Your task to perform on an android device: turn on location history Image 0: 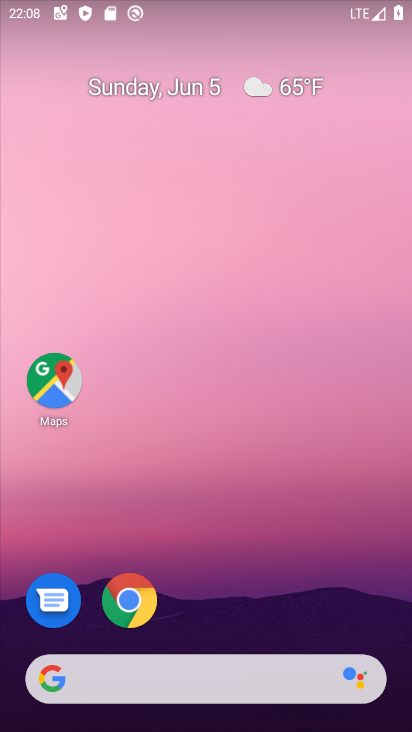
Step 0: drag from (348, 624) to (276, 186)
Your task to perform on an android device: turn on location history Image 1: 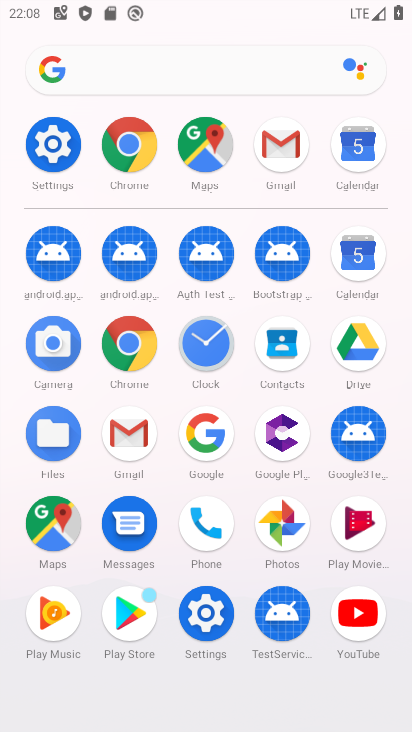
Step 1: click (54, 150)
Your task to perform on an android device: turn on location history Image 2: 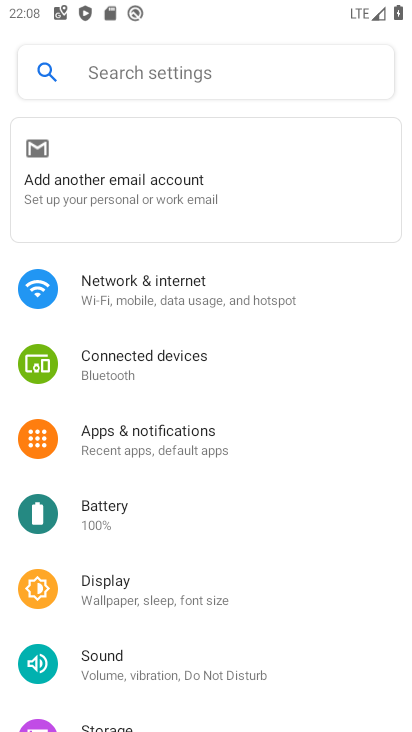
Step 2: drag from (278, 641) to (306, 277)
Your task to perform on an android device: turn on location history Image 3: 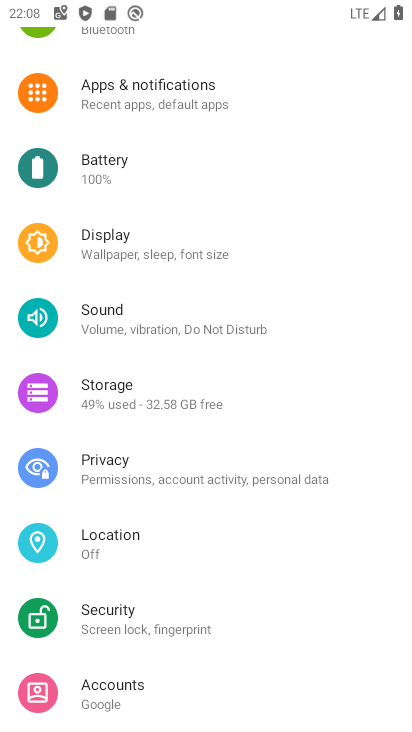
Step 3: click (144, 539)
Your task to perform on an android device: turn on location history Image 4: 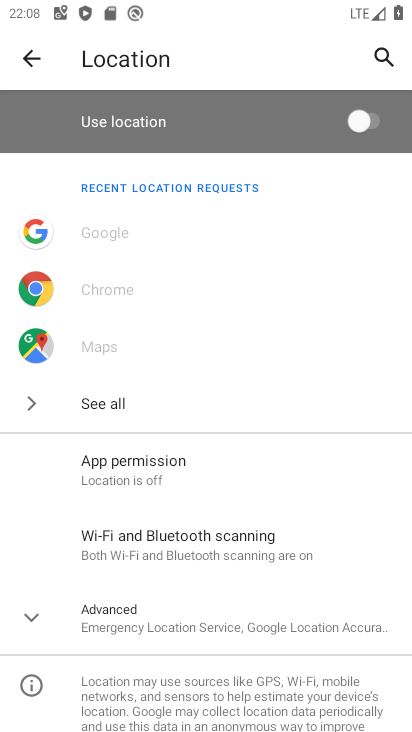
Step 4: click (139, 633)
Your task to perform on an android device: turn on location history Image 5: 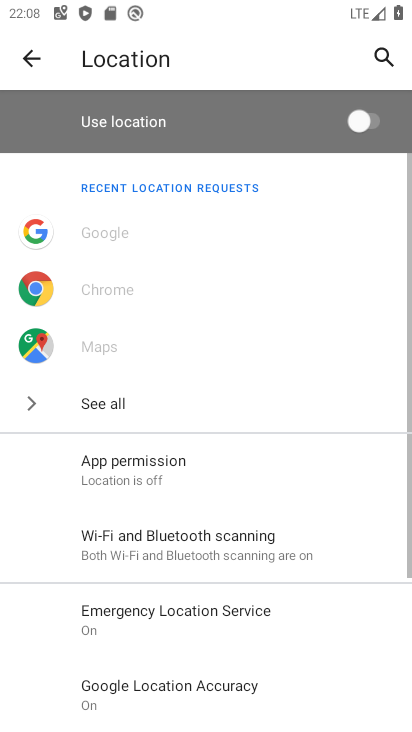
Step 5: drag from (149, 626) to (248, 249)
Your task to perform on an android device: turn on location history Image 6: 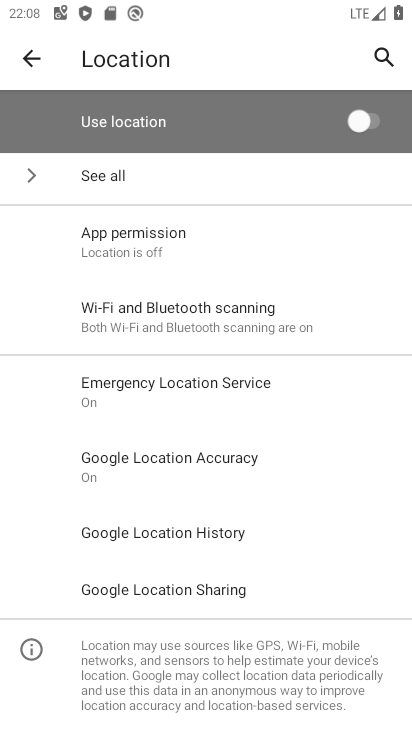
Step 6: click (180, 533)
Your task to perform on an android device: turn on location history Image 7: 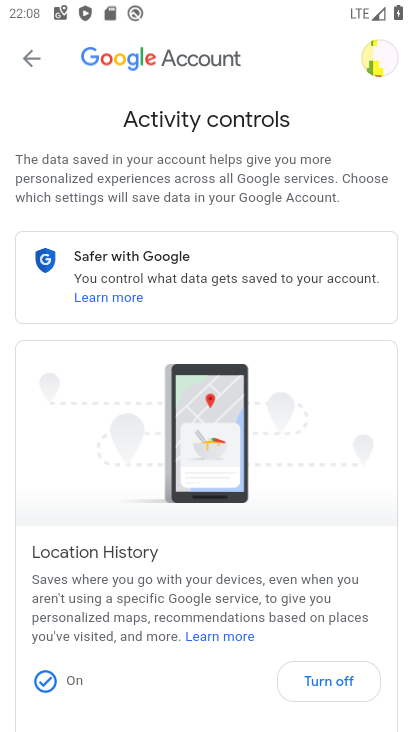
Step 7: task complete